Your task to perform on an android device: Go to Maps Image 0: 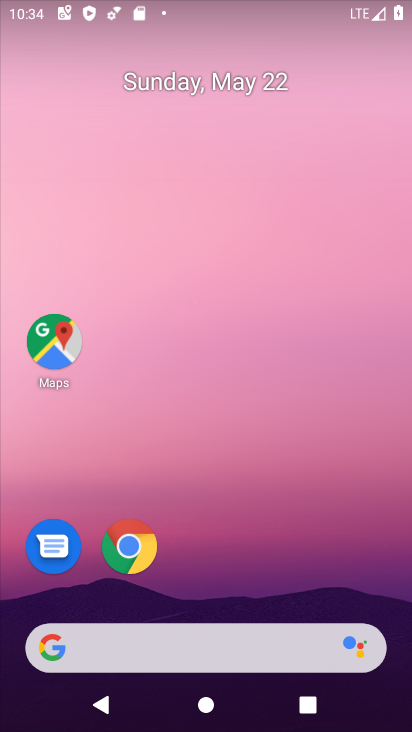
Step 0: click (60, 334)
Your task to perform on an android device: Go to Maps Image 1: 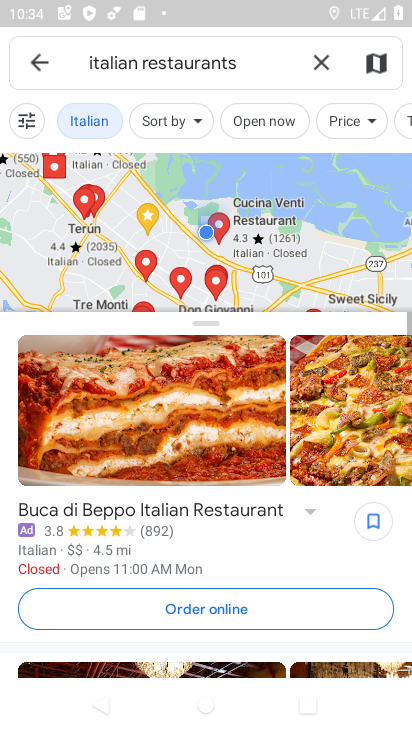
Step 1: click (50, 62)
Your task to perform on an android device: Go to Maps Image 2: 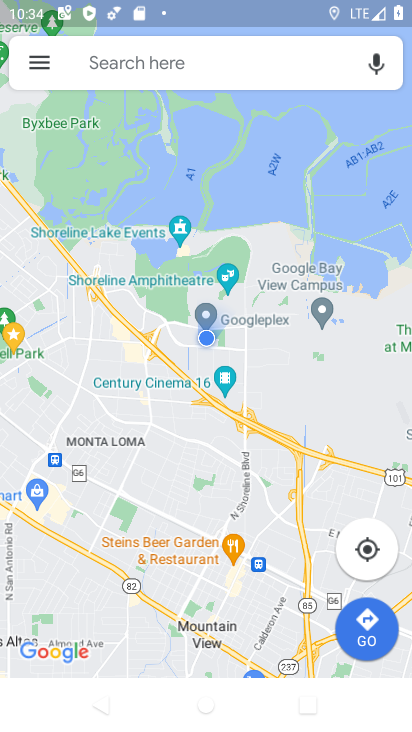
Step 2: task complete